Your task to perform on an android device: Open Chrome and go to settings Image 0: 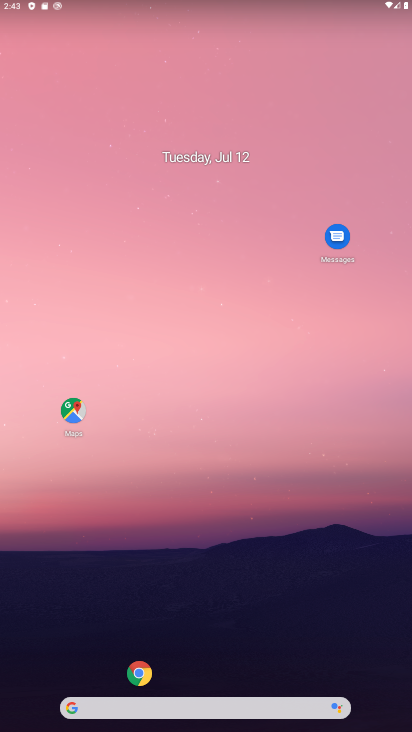
Step 0: drag from (144, 417) to (206, 53)
Your task to perform on an android device: Open Chrome and go to settings Image 1: 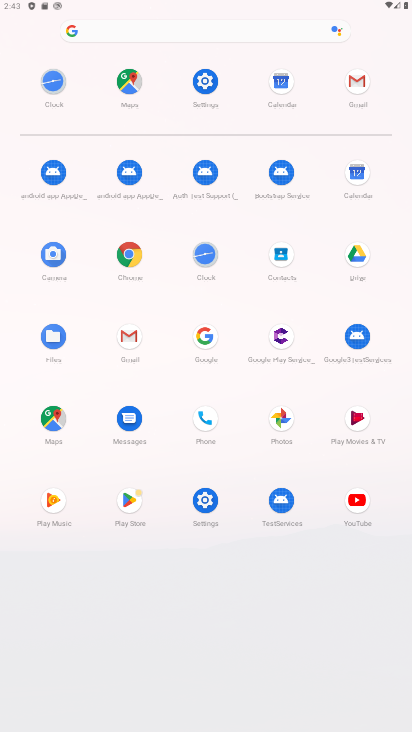
Step 1: click (127, 262)
Your task to perform on an android device: Open Chrome and go to settings Image 2: 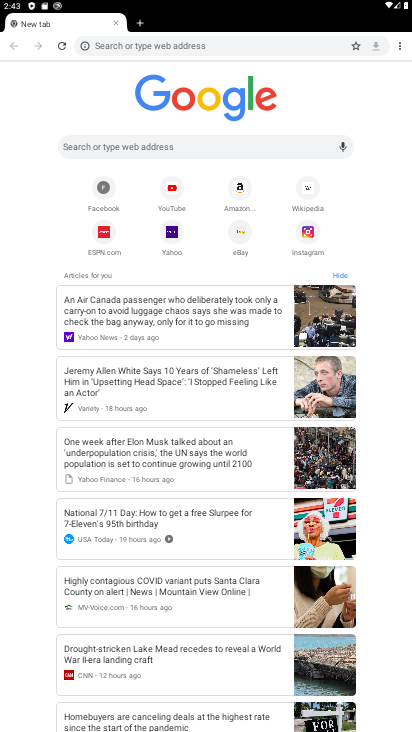
Step 2: click (397, 43)
Your task to perform on an android device: Open Chrome and go to settings Image 3: 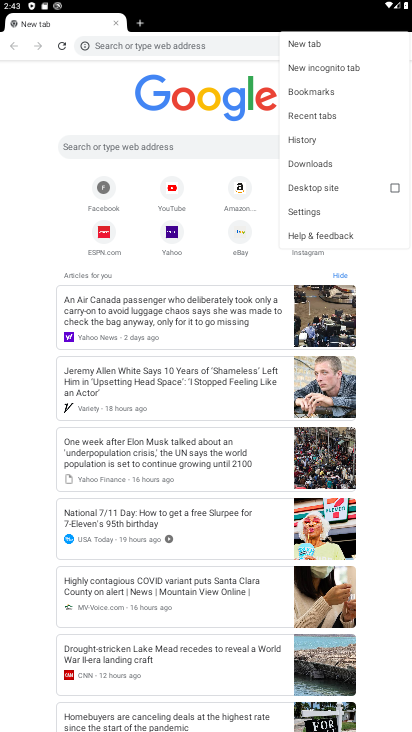
Step 3: click (302, 210)
Your task to perform on an android device: Open Chrome and go to settings Image 4: 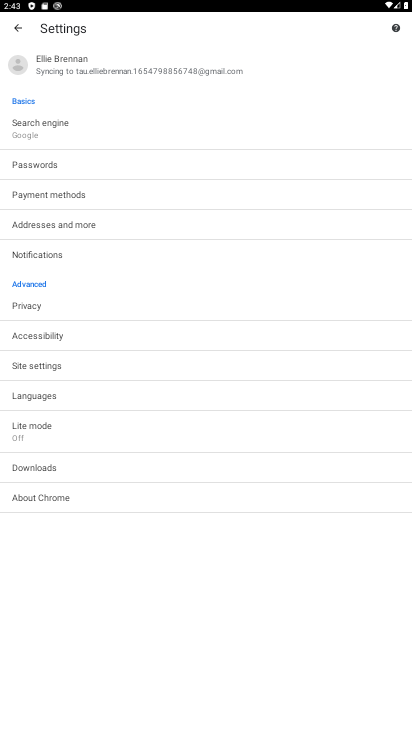
Step 4: task complete